Your task to perform on an android device: turn off airplane mode Image 0: 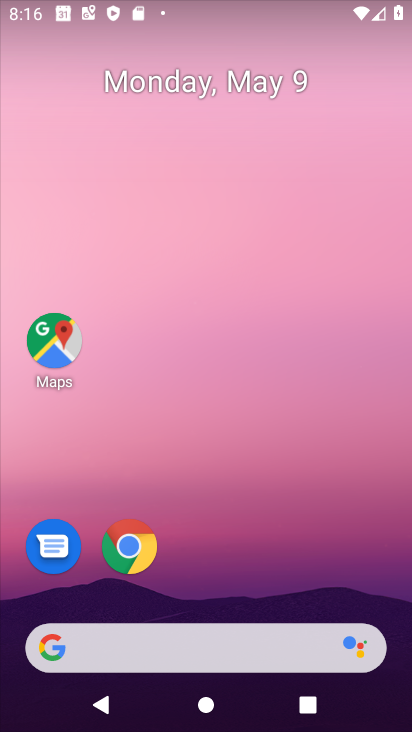
Step 0: drag from (268, 682) to (206, 180)
Your task to perform on an android device: turn off airplane mode Image 1: 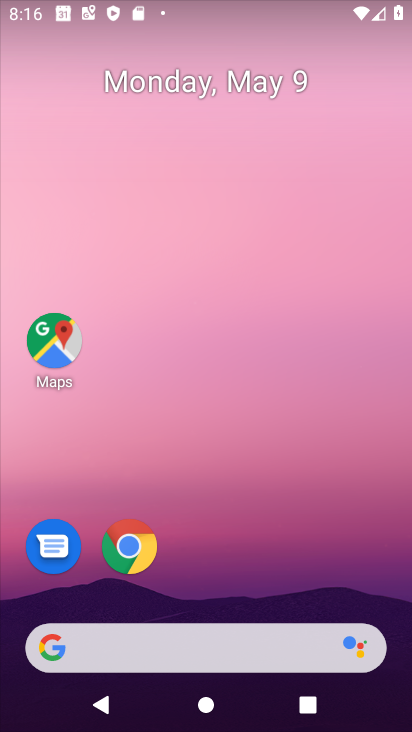
Step 1: drag from (270, 704) to (223, 32)
Your task to perform on an android device: turn off airplane mode Image 2: 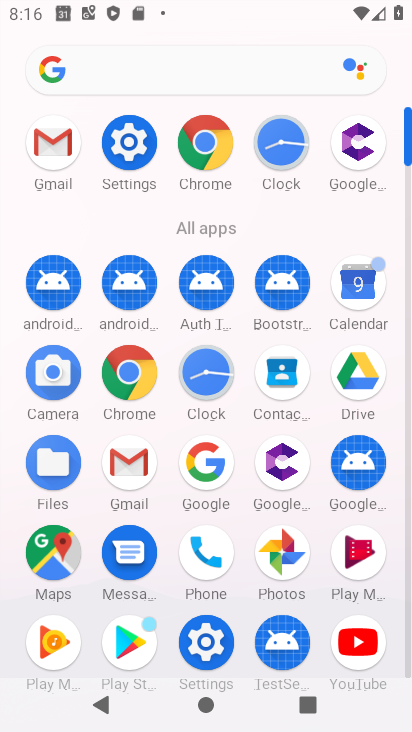
Step 2: click (119, 162)
Your task to perform on an android device: turn off airplane mode Image 3: 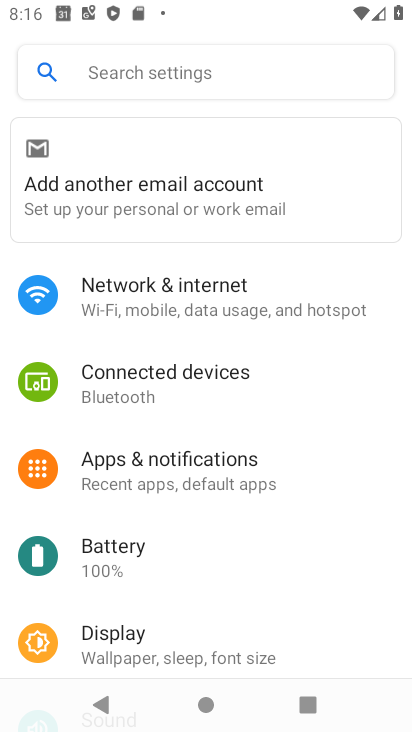
Step 3: click (273, 312)
Your task to perform on an android device: turn off airplane mode Image 4: 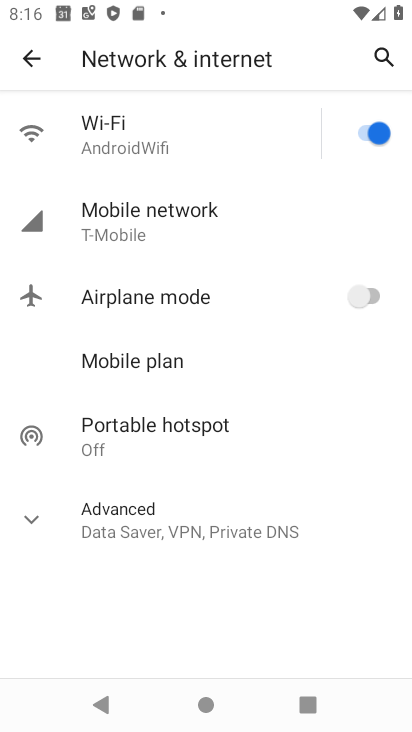
Step 4: task complete